Your task to perform on an android device: Toggle the flashlight Image 0: 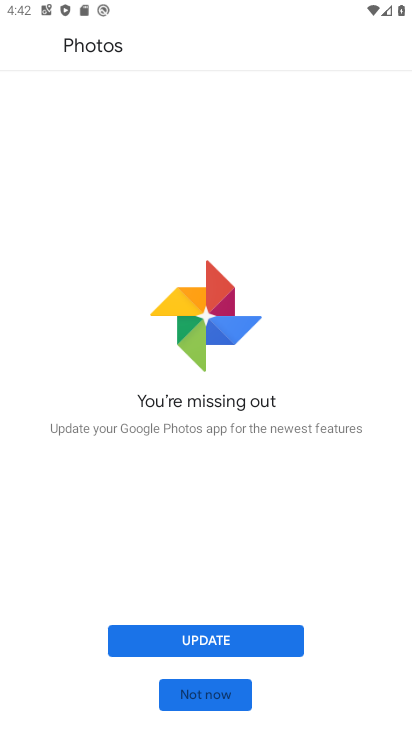
Step 0: drag from (286, 0) to (265, 481)
Your task to perform on an android device: Toggle the flashlight Image 1: 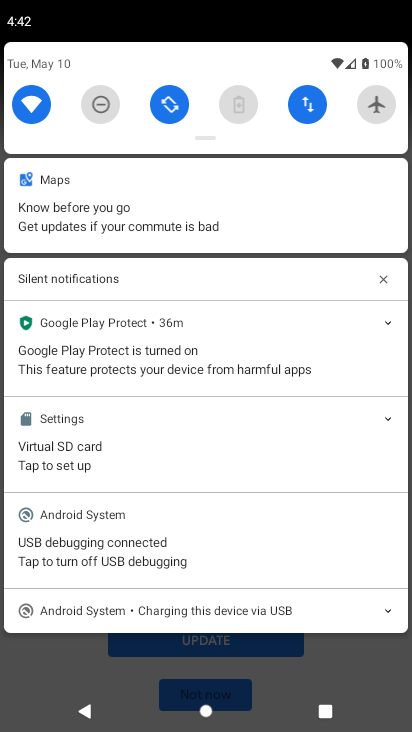
Step 1: task complete